Your task to perform on an android device: turn on priority inbox in the gmail app Image 0: 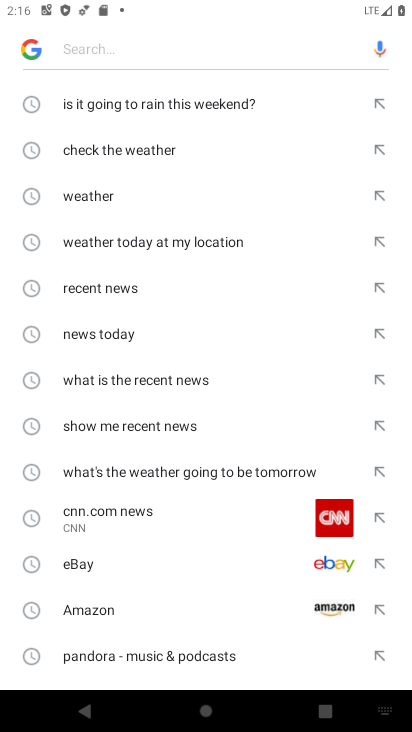
Step 0: press home button
Your task to perform on an android device: turn on priority inbox in the gmail app Image 1: 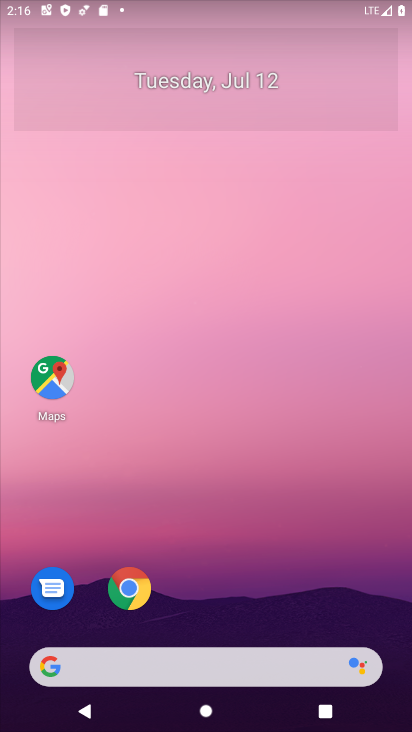
Step 1: drag from (140, 706) to (180, 145)
Your task to perform on an android device: turn on priority inbox in the gmail app Image 2: 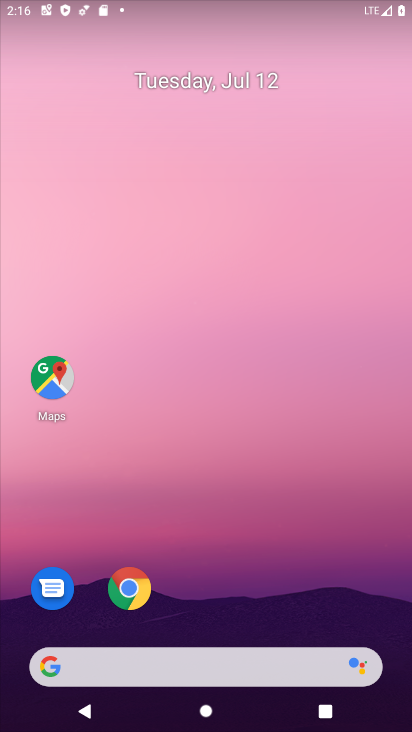
Step 2: drag from (149, 716) to (260, 15)
Your task to perform on an android device: turn on priority inbox in the gmail app Image 3: 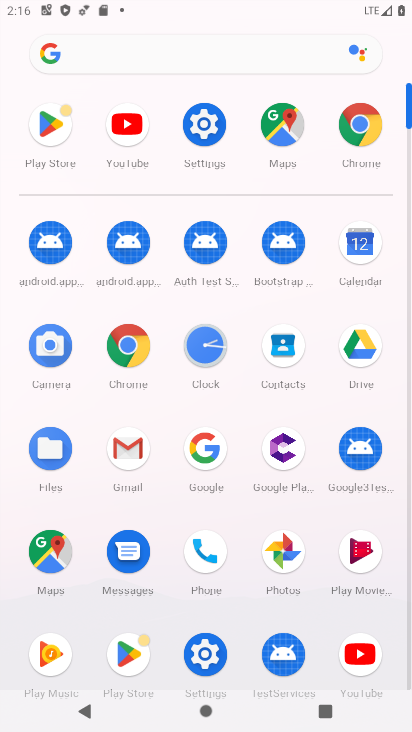
Step 3: click (111, 443)
Your task to perform on an android device: turn on priority inbox in the gmail app Image 4: 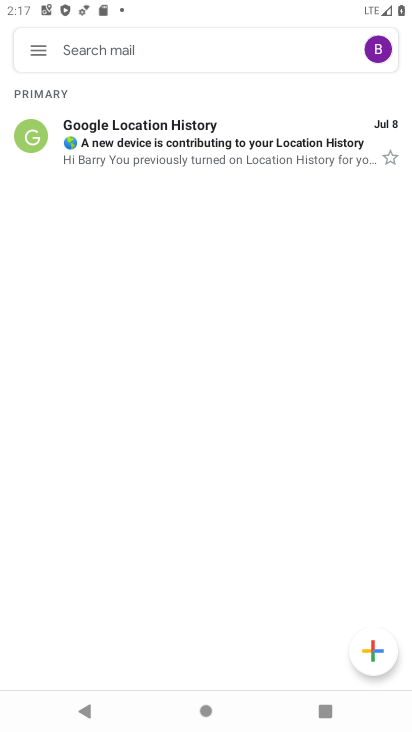
Step 4: click (42, 42)
Your task to perform on an android device: turn on priority inbox in the gmail app Image 5: 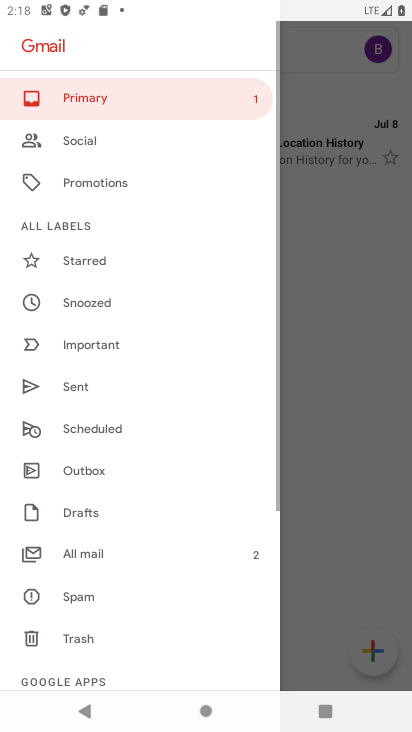
Step 5: drag from (64, 560) to (163, 16)
Your task to perform on an android device: turn on priority inbox in the gmail app Image 6: 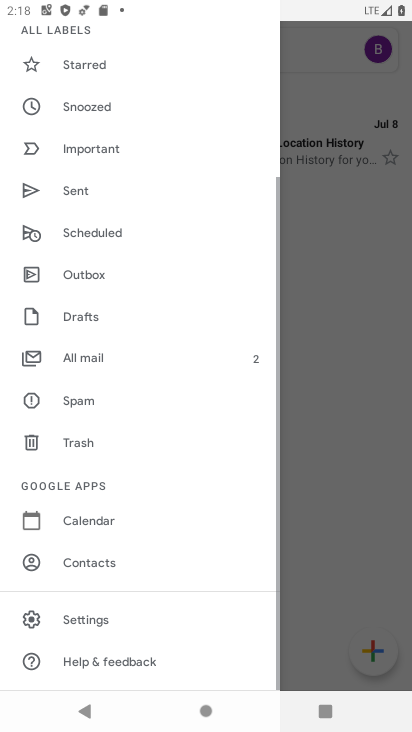
Step 6: click (107, 626)
Your task to perform on an android device: turn on priority inbox in the gmail app Image 7: 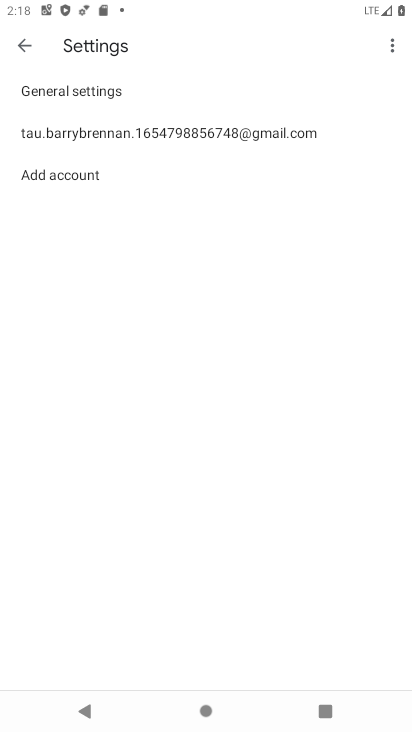
Step 7: click (145, 130)
Your task to perform on an android device: turn on priority inbox in the gmail app Image 8: 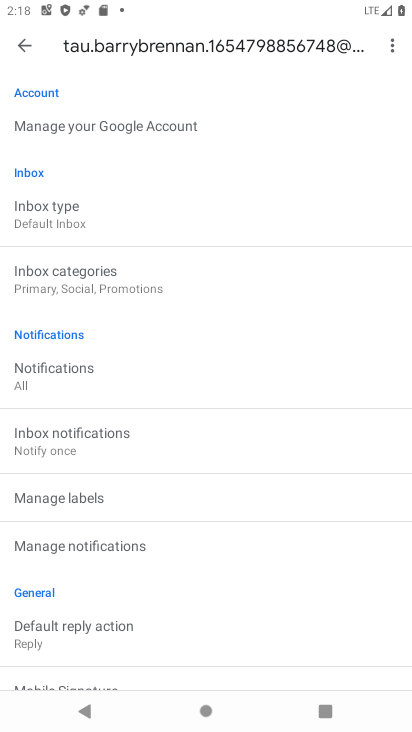
Step 8: click (58, 214)
Your task to perform on an android device: turn on priority inbox in the gmail app Image 9: 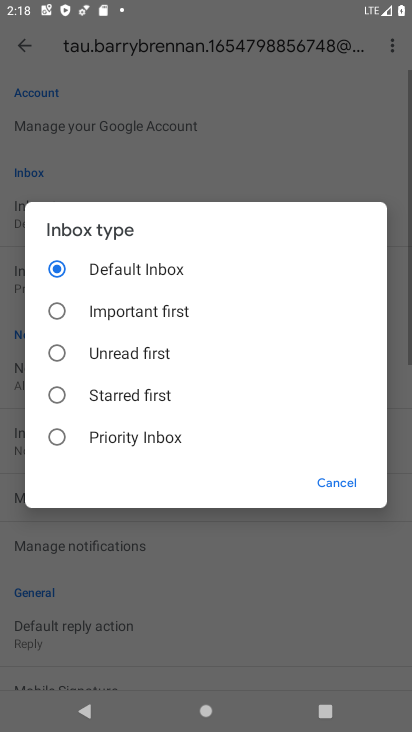
Step 9: click (141, 433)
Your task to perform on an android device: turn on priority inbox in the gmail app Image 10: 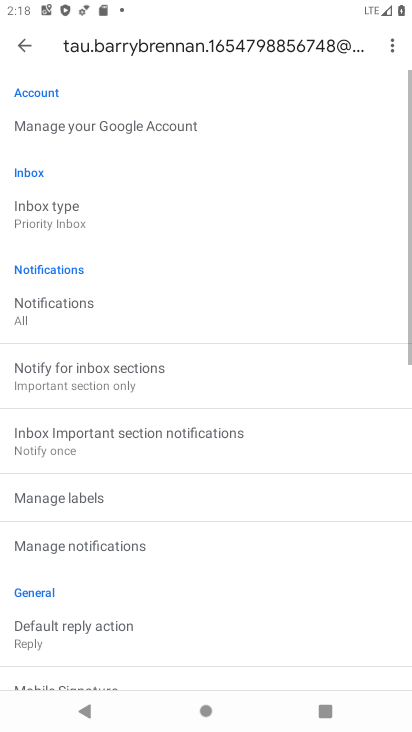
Step 10: task complete